Your task to perform on an android device: Go to location settings Image 0: 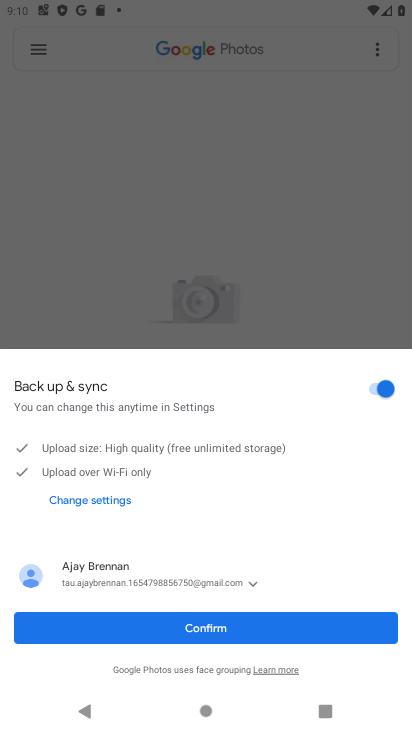
Step 0: press home button
Your task to perform on an android device: Go to location settings Image 1: 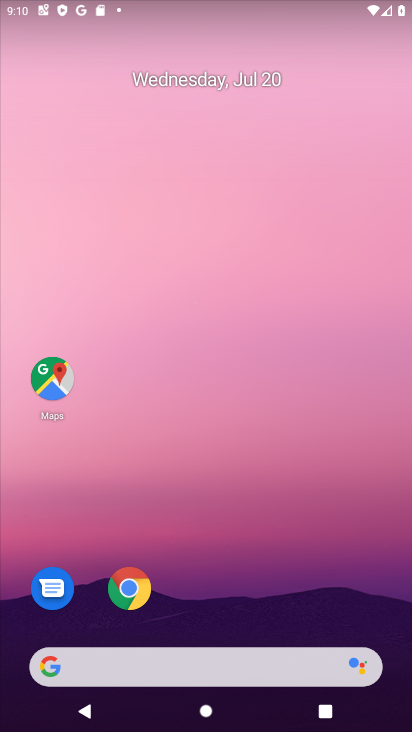
Step 1: drag from (252, 649) to (341, 53)
Your task to perform on an android device: Go to location settings Image 2: 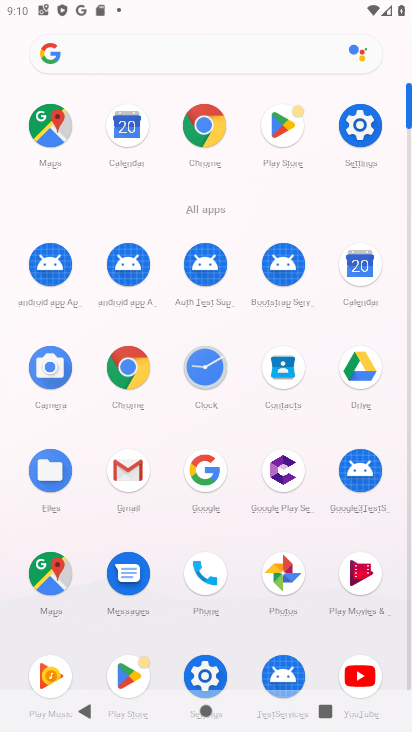
Step 2: click (374, 120)
Your task to perform on an android device: Go to location settings Image 3: 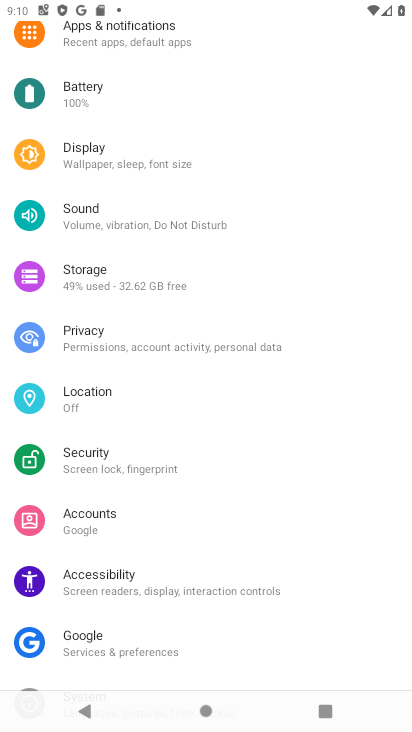
Step 3: click (166, 407)
Your task to perform on an android device: Go to location settings Image 4: 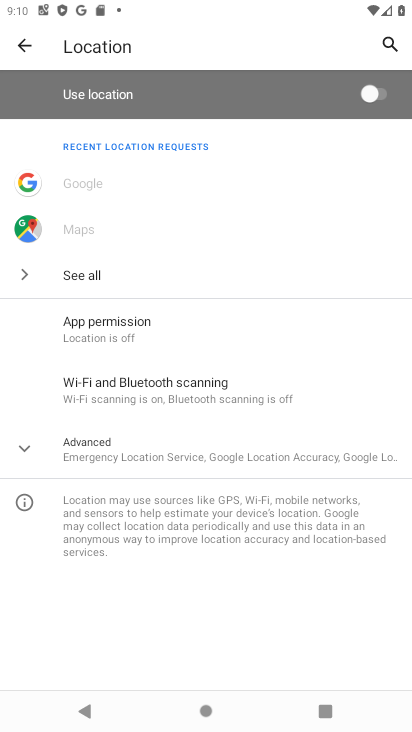
Step 4: task complete